Your task to perform on an android device: change the upload size in google photos Image 0: 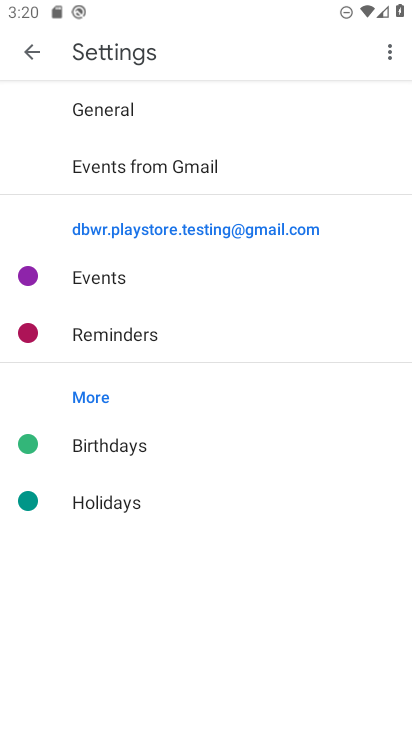
Step 0: press home button
Your task to perform on an android device: change the upload size in google photos Image 1: 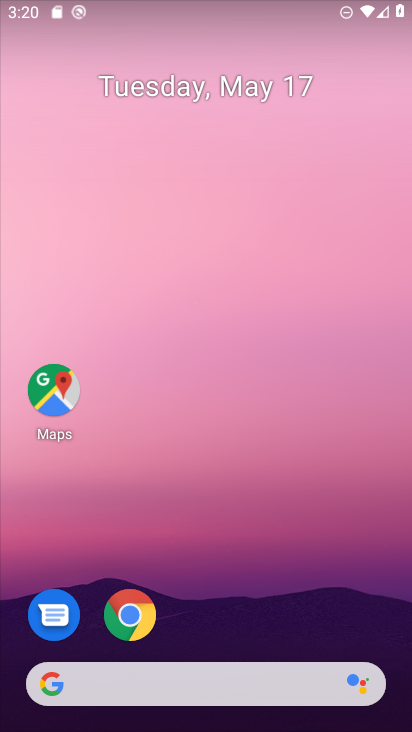
Step 1: drag from (219, 695) to (206, 194)
Your task to perform on an android device: change the upload size in google photos Image 2: 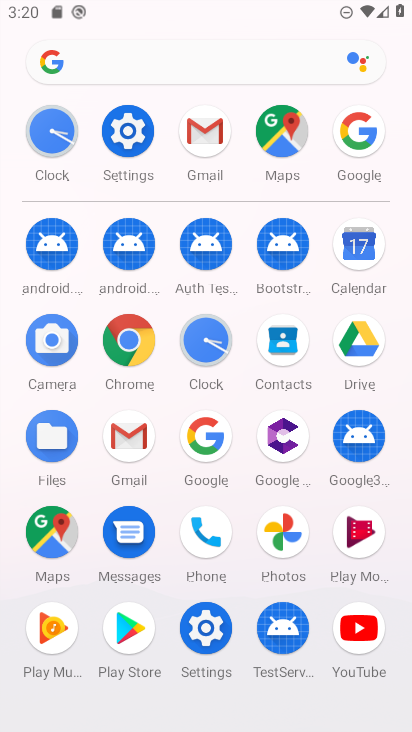
Step 2: click (277, 523)
Your task to perform on an android device: change the upload size in google photos Image 3: 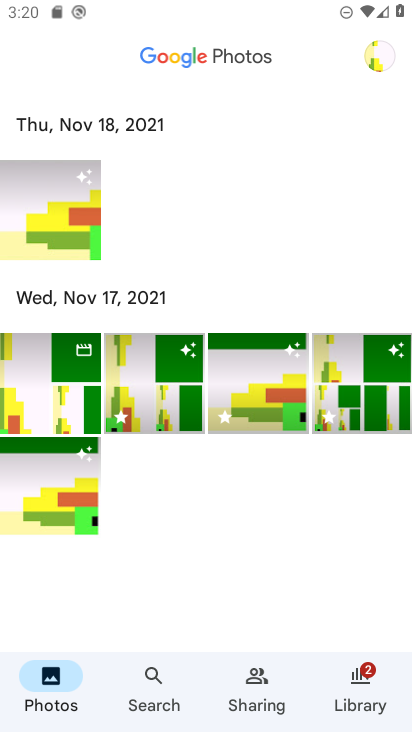
Step 3: click (382, 50)
Your task to perform on an android device: change the upload size in google photos Image 4: 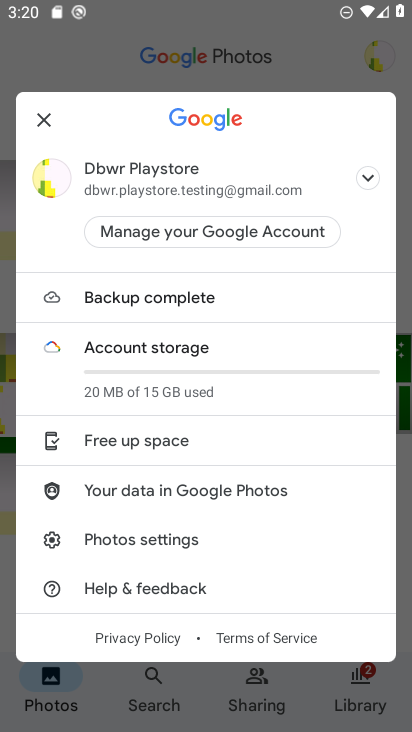
Step 4: click (132, 542)
Your task to perform on an android device: change the upload size in google photos Image 5: 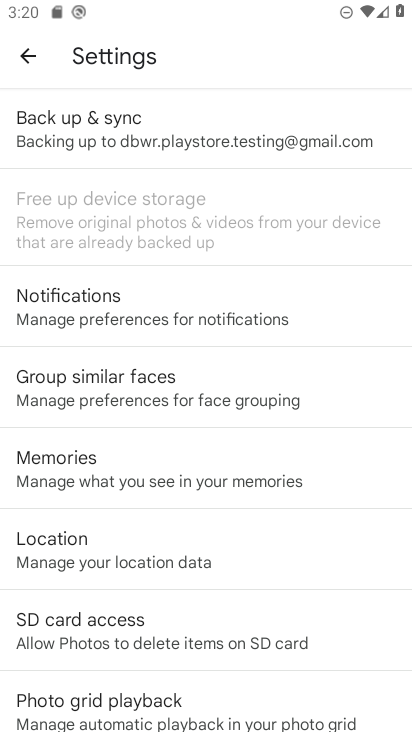
Step 5: click (85, 124)
Your task to perform on an android device: change the upload size in google photos Image 6: 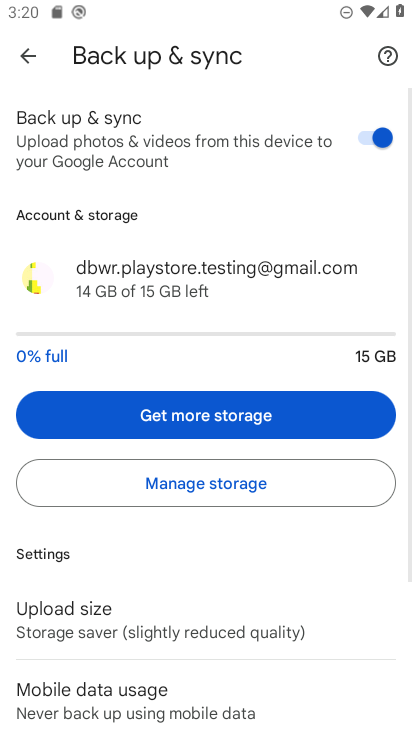
Step 6: click (79, 623)
Your task to perform on an android device: change the upload size in google photos Image 7: 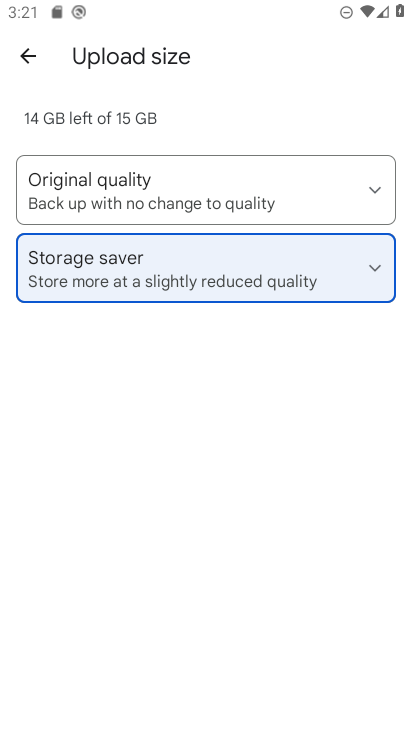
Step 7: click (86, 180)
Your task to perform on an android device: change the upload size in google photos Image 8: 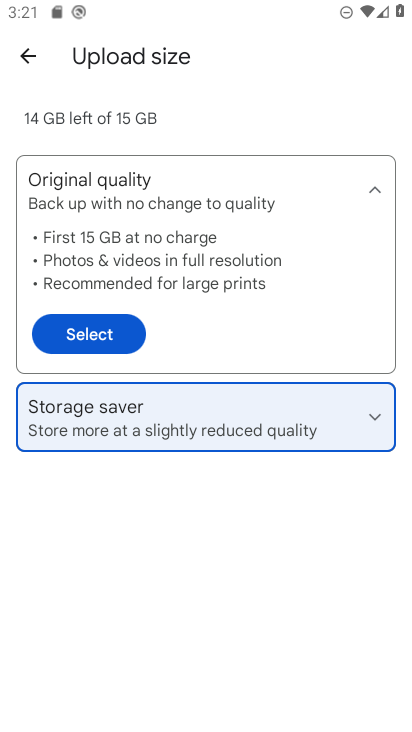
Step 8: click (94, 330)
Your task to perform on an android device: change the upload size in google photos Image 9: 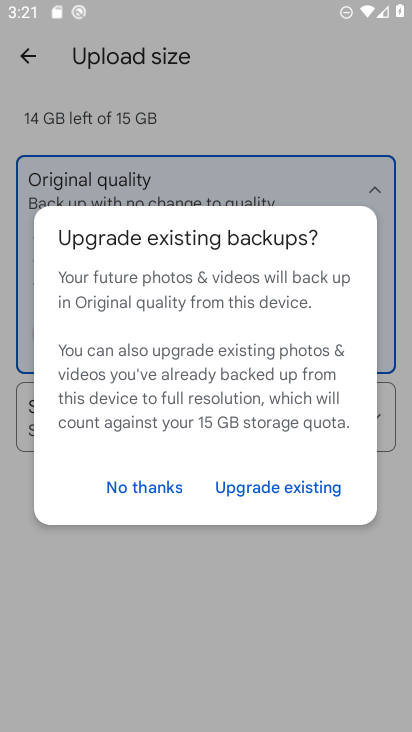
Step 9: click (158, 481)
Your task to perform on an android device: change the upload size in google photos Image 10: 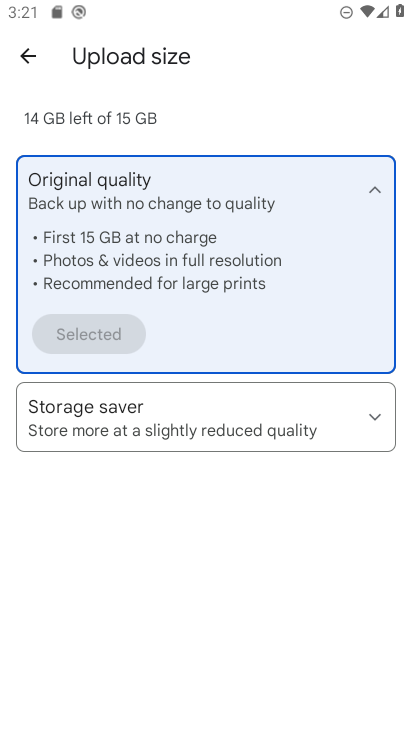
Step 10: task complete